Your task to perform on an android device: delete location history Image 0: 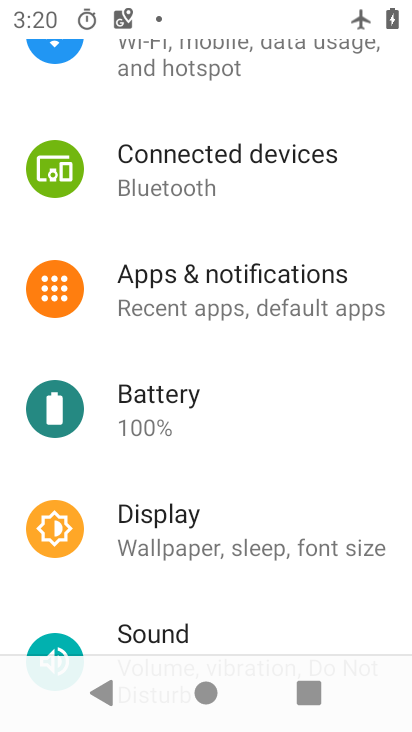
Step 0: drag from (207, 623) to (282, 110)
Your task to perform on an android device: delete location history Image 1: 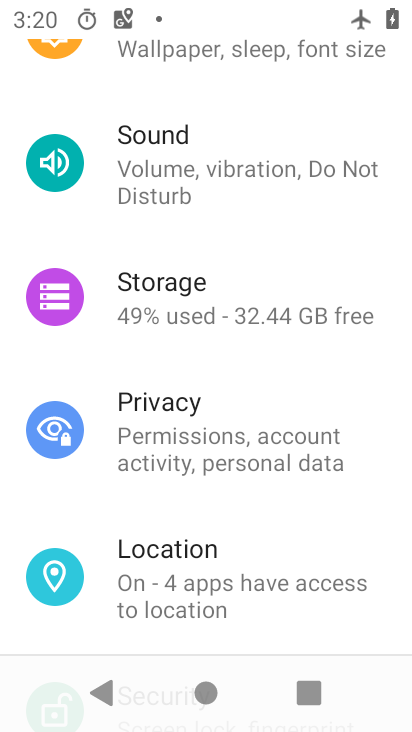
Step 1: click (157, 562)
Your task to perform on an android device: delete location history Image 2: 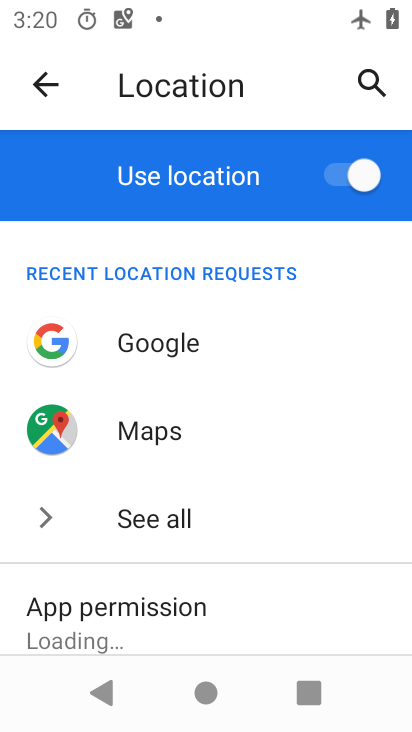
Step 2: drag from (231, 612) to (306, 107)
Your task to perform on an android device: delete location history Image 3: 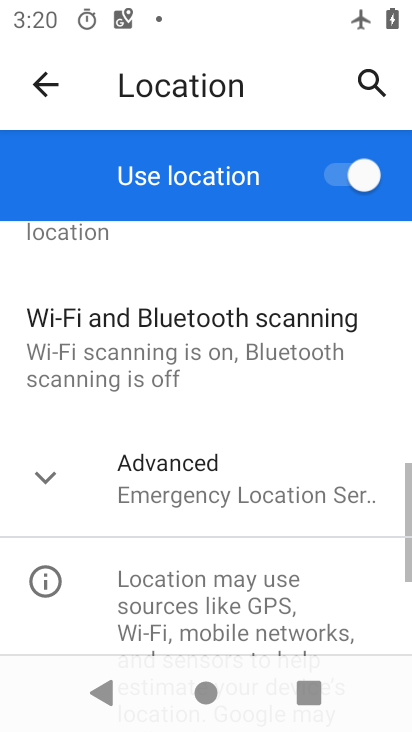
Step 3: click (191, 512)
Your task to perform on an android device: delete location history Image 4: 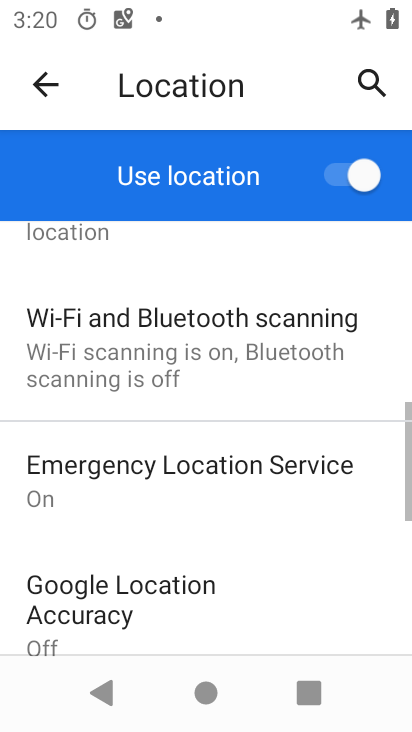
Step 4: drag from (194, 508) to (260, 225)
Your task to perform on an android device: delete location history Image 5: 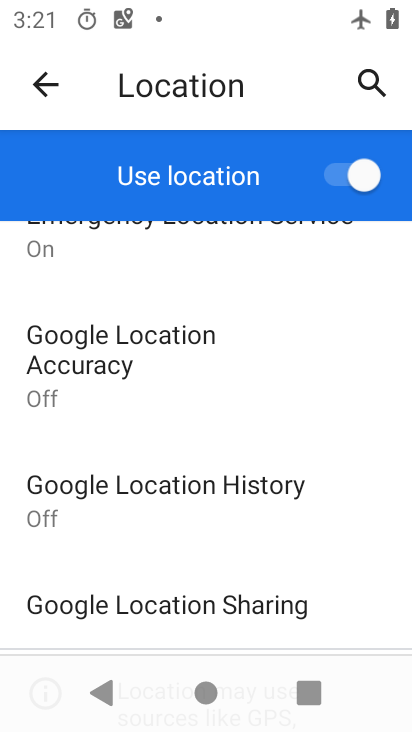
Step 5: drag from (232, 601) to (277, 276)
Your task to perform on an android device: delete location history Image 6: 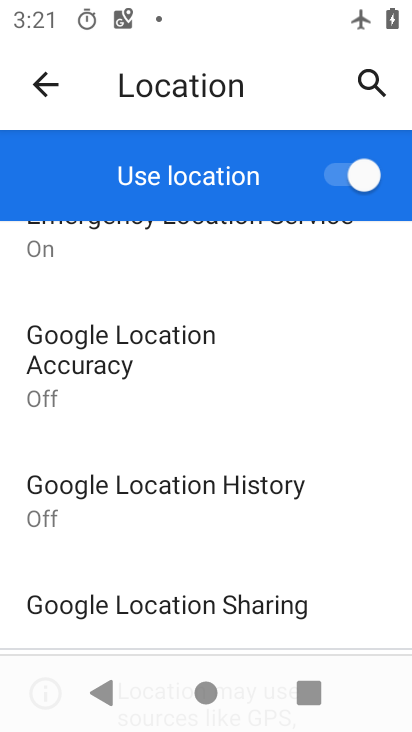
Step 6: drag from (189, 576) to (280, 253)
Your task to perform on an android device: delete location history Image 7: 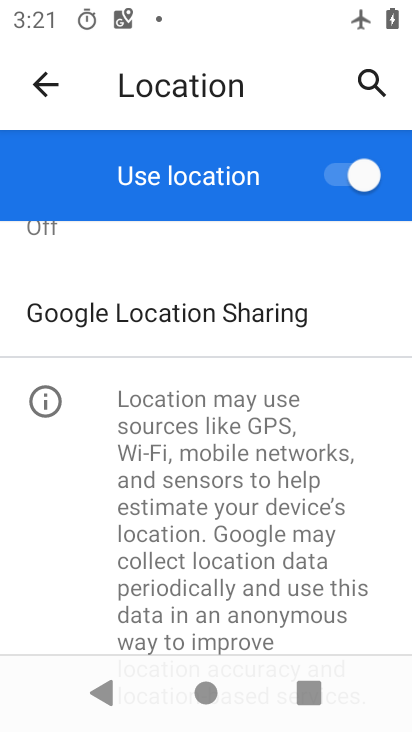
Step 7: drag from (178, 286) to (184, 543)
Your task to perform on an android device: delete location history Image 8: 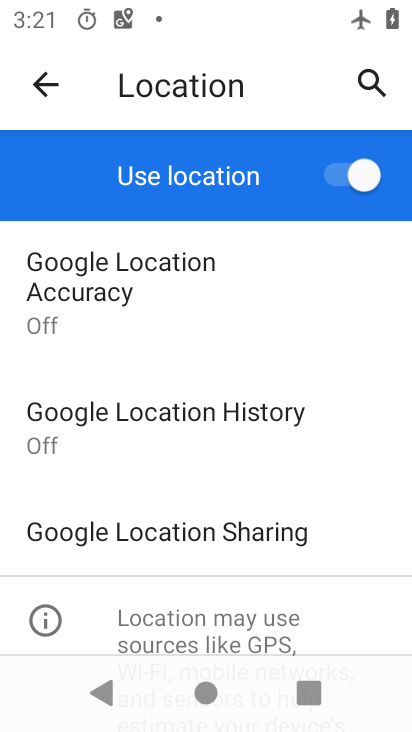
Step 8: click (210, 430)
Your task to perform on an android device: delete location history Image 9: 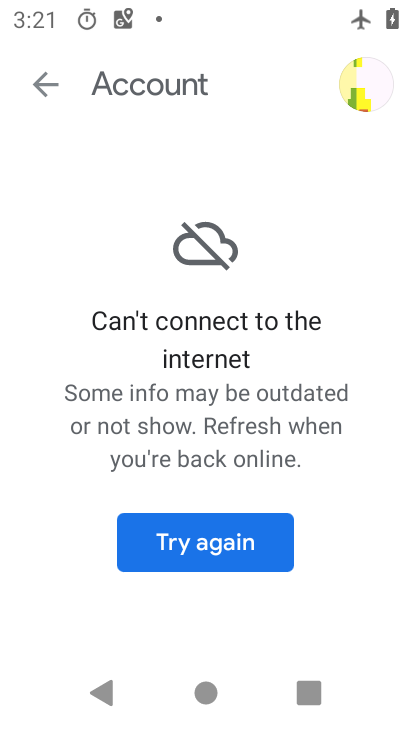
Step 9: click (209, 534)
Your task to perform on an android device: delete location history Image 10: 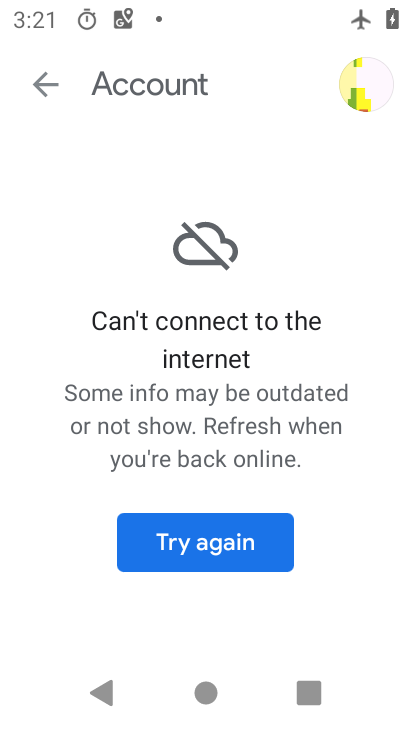
Step 10: task complete